Your task to perform on an android device: Open wifi settings Image 0: 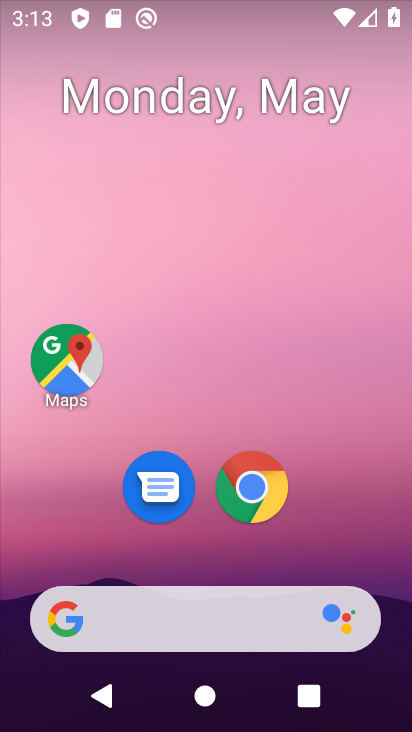
Step 0: drag from (186, 587) to (186, 247)
Your task to perform on an android device: Open wifi settings Image 1: 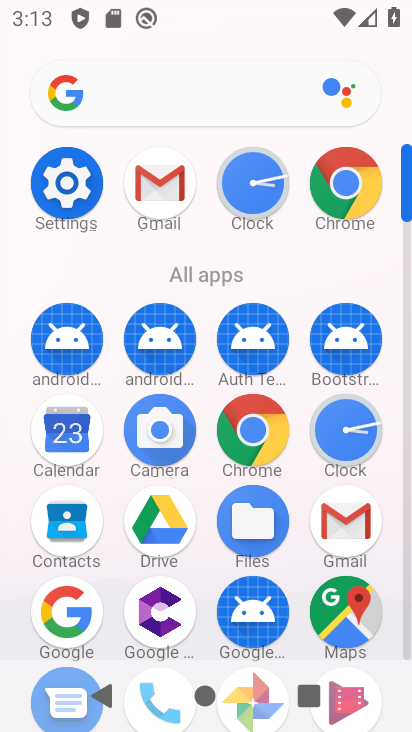
Step 1: click (71, 181)
Your task to perform on an android device: Open wifi settings Image 2: 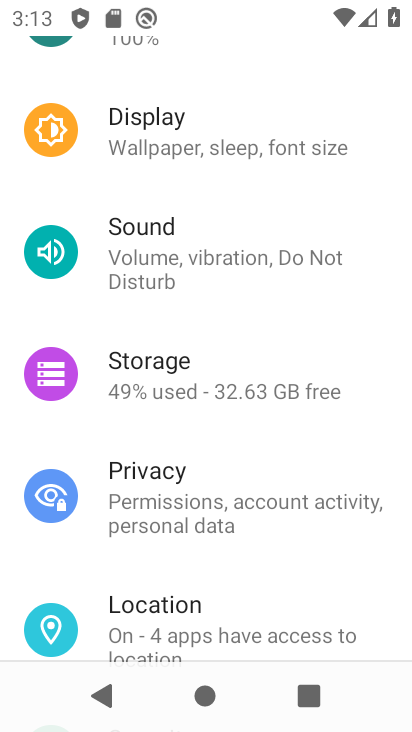
Step 2: drag from (262, 144) to (265, 577)
Your task to perform on an android device: Open wifi settings Image 3: 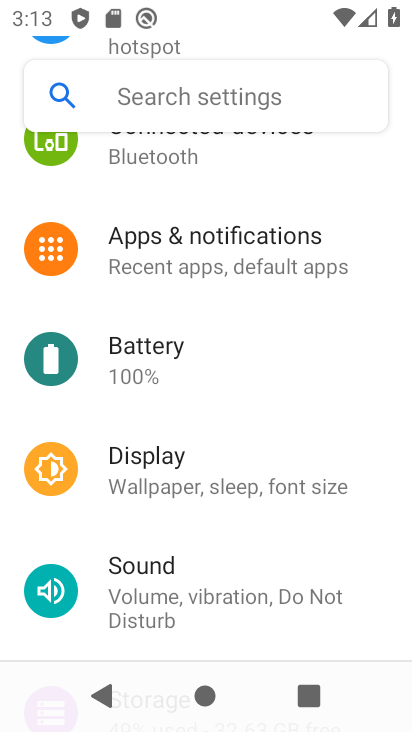
Step 3: click (231, 110)
Your task to perform on an android device: Open wifi settings Image 4: 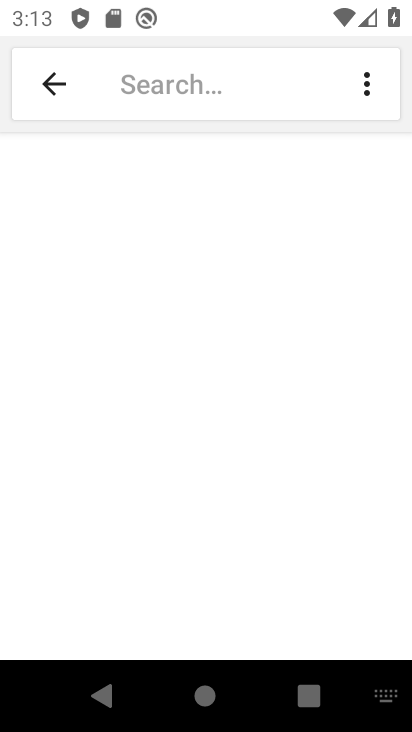
Step 4: click (49, 71)
Your task to perform on an android device: Open wifi settings Image 5: 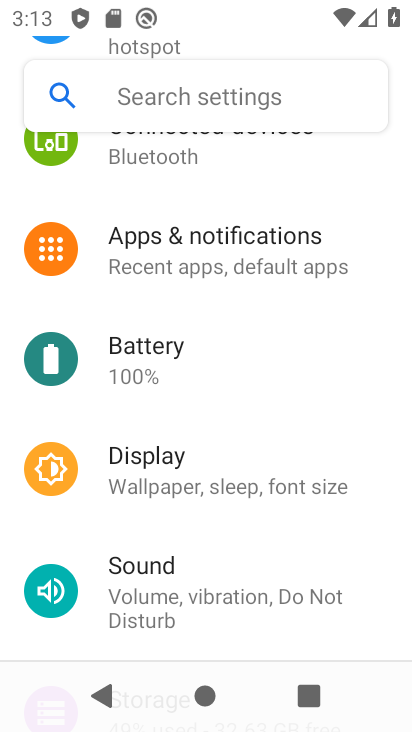
Step 5: drag from (220, 198) to (178, 603)
Your task to perform on an android device: Open wifi settings Image 6: 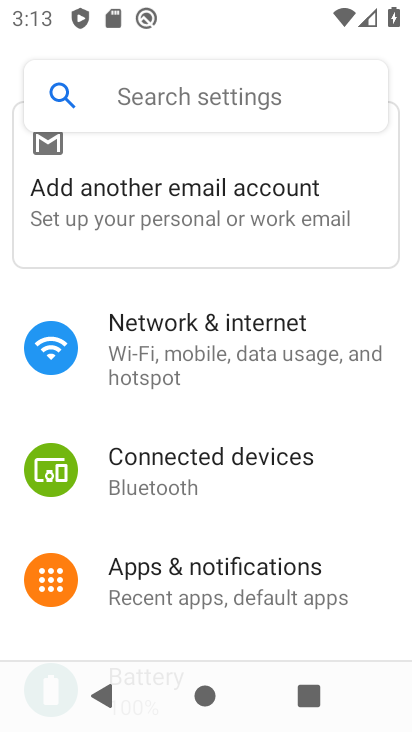
Step 6: click (189, 332)
Your task to perform on an android device: Open wifi settings Image 7: 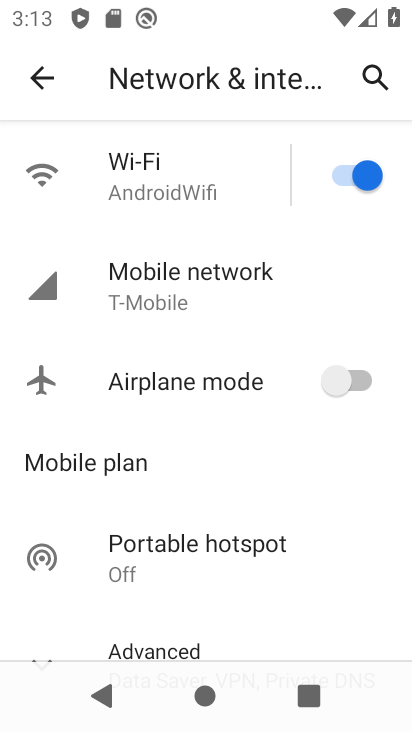
Step 7: click (111, 186)
Your task to perform on an android device: Open wifi settings Image 8: 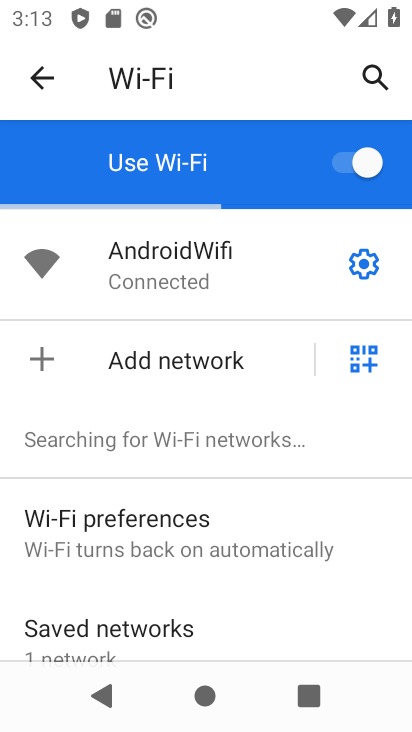
Step 8: click (358, 266)
Your task to perform on an android device: Open wifi settings Image 9: 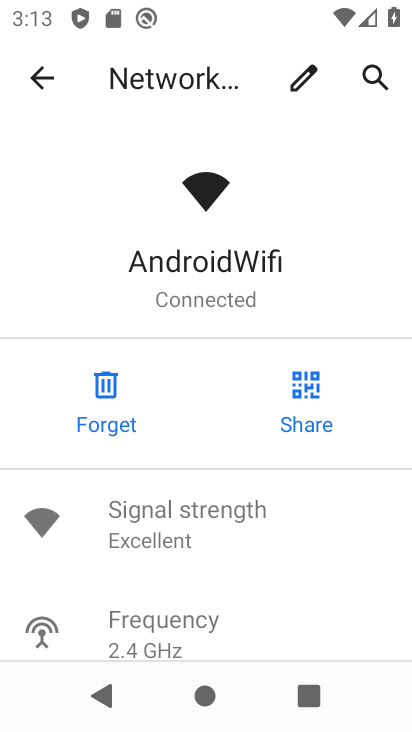
Step 9: task complete